Your task to perform on an android device: Open Reddit.com Image 0: 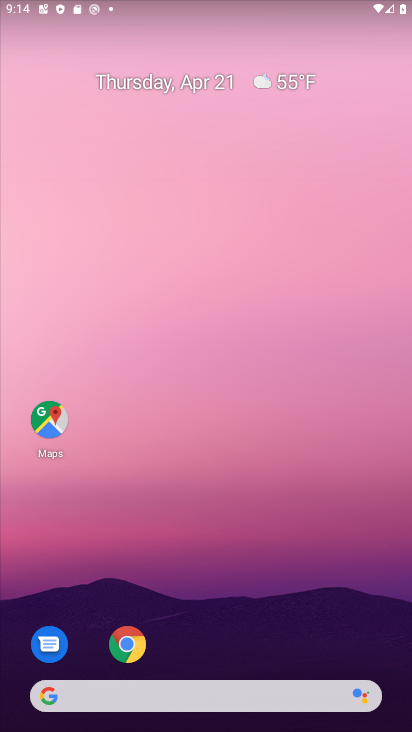
Step 0: click (124, 649)
Your task to perform on an android device: Open Reddit.com Image 1: 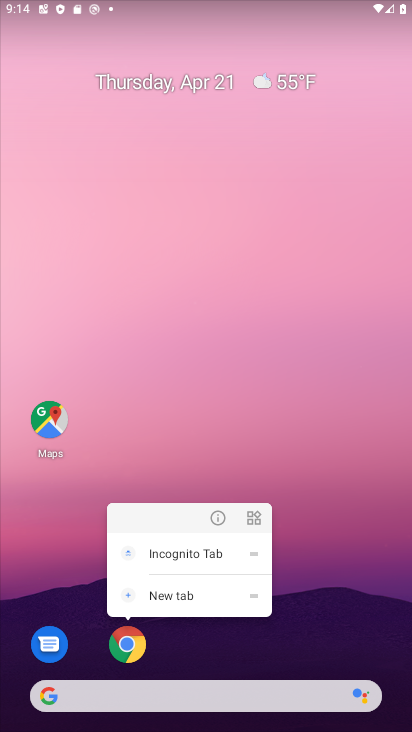
Step 1: click (126, 647)
Your task to perform on an android device: Open Reddit.com Image 2: 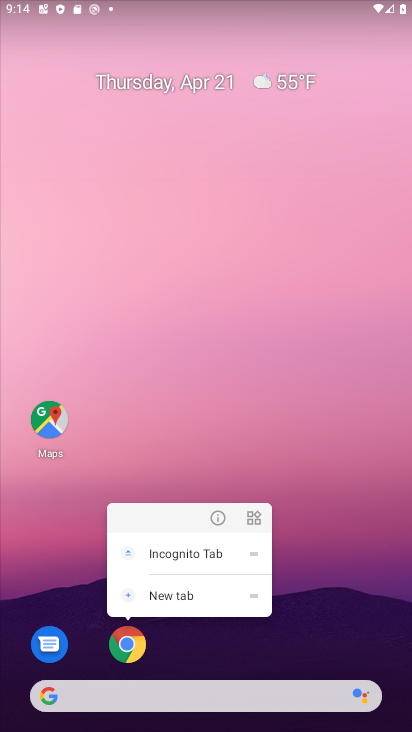
Step 2: drag from (324, 628) to (335, 73)
Your task to perform on an android device: Open Reddit.com Image 3: 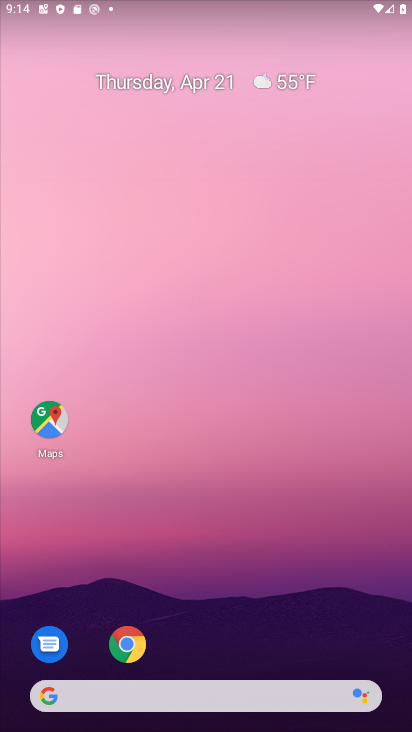
Step 3: drag from (208, 371) to (198, 58)
Your task to perform on an android device: Open Reddit.com Image 4: 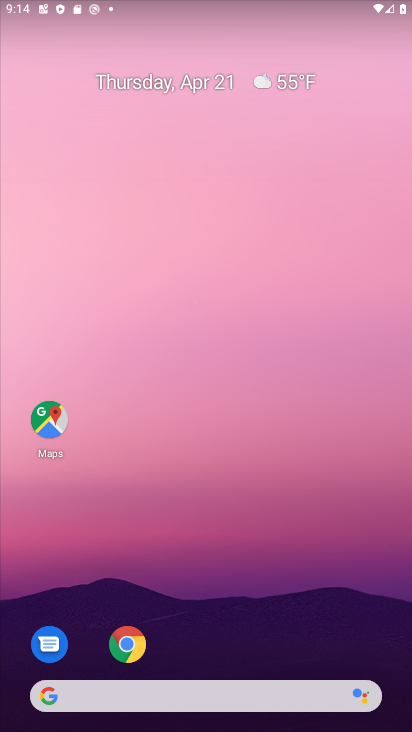
Step 4: drag from (268, 561) to (261, 56)
Your task to perform on an android device: Open Reddit.com Image 5: 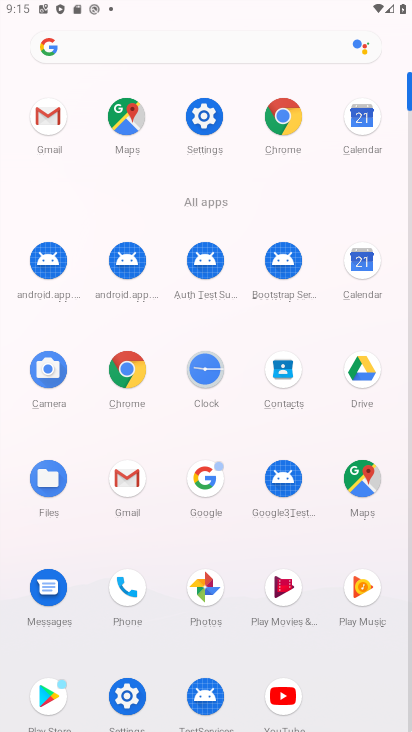
Step 5: click (126, 374)
Your task to perform on an android device: Open Reddit.com Image 6: 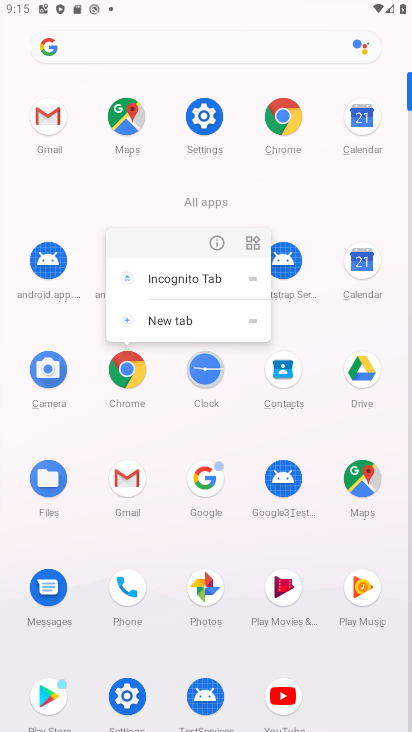
Step 6: click (132, 372)
Your task to perform on an android device: Open Reddit.com Image 7: 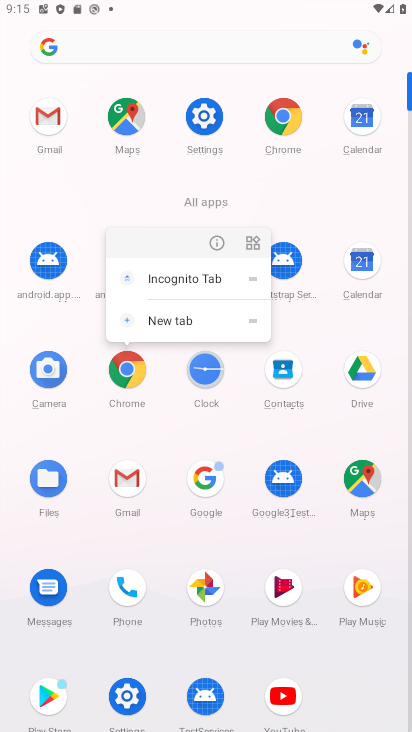
Step 7: click (113, 379)
Your task to perform on an android device: Open Reddit.com Image 8: 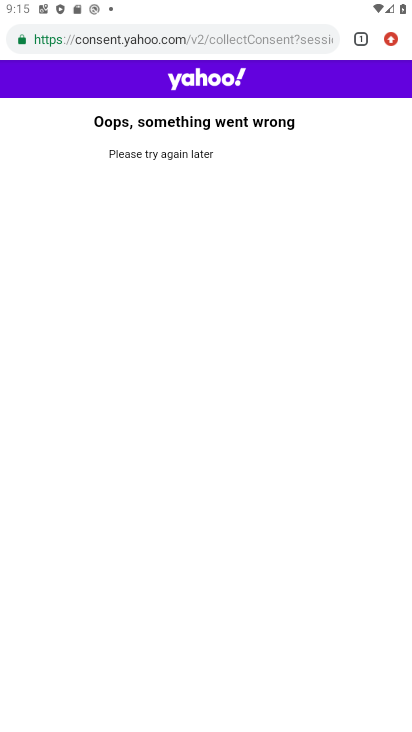
Step 8: click (176, 34)
Your task to perform on an android device: Open Reddit.com Image 9: 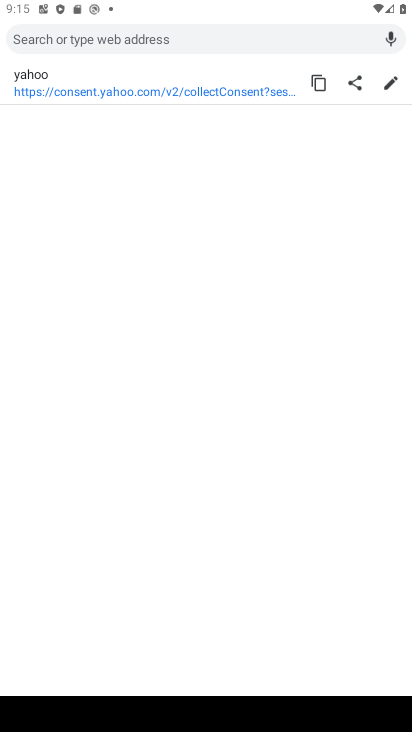
Step 9: type "reddit.com"
Your task to perform on an android device: Open Reddit.com Image 10: 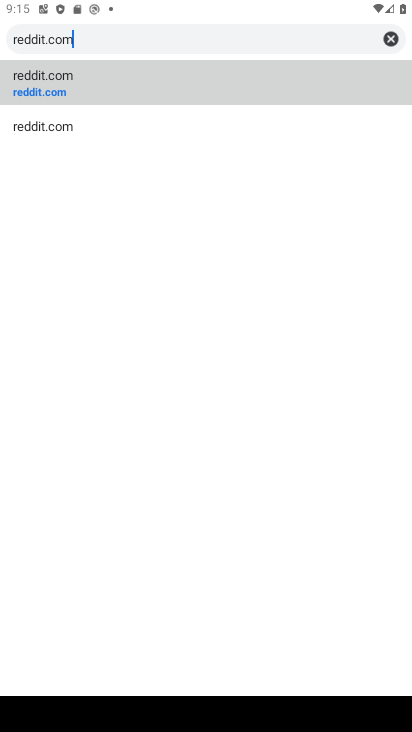
Step 10: click (36, 78)
Your task to perform on an android device: Open Reddit.com Image 11: 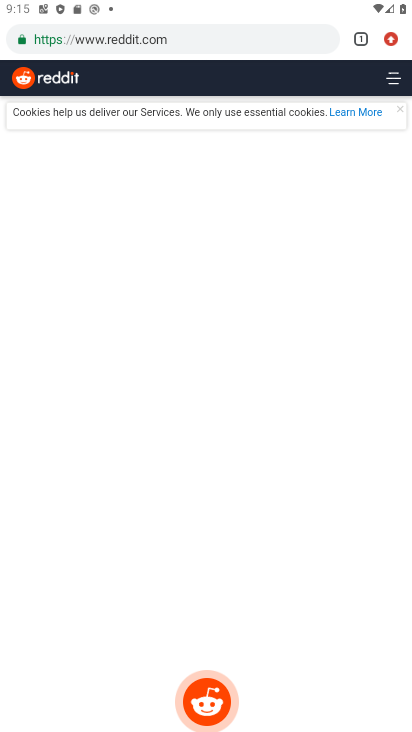
Step 11: task complete